Your task to perform on an android device: Open ESPN.com Image 0: 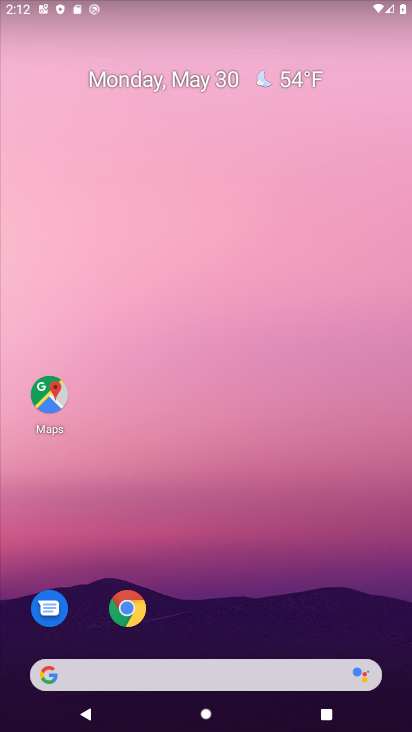
Step 0: click (121, 601)
Your task to perform on an android device: Open ESPN.com Image 1: 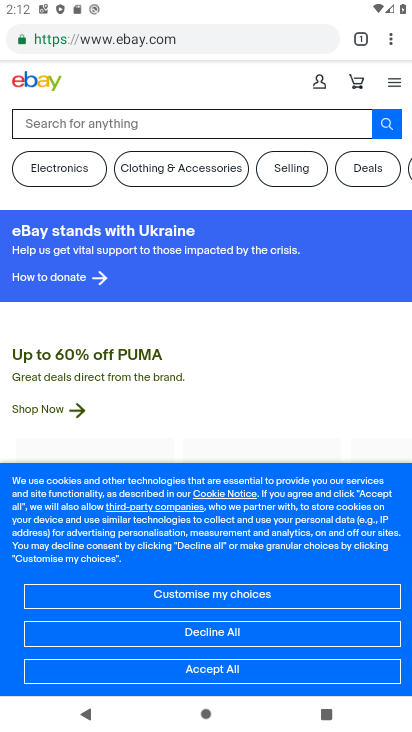
Step 1: click (361, 38)
Your task to perform on an android device: Open ESPN.com Image 2: 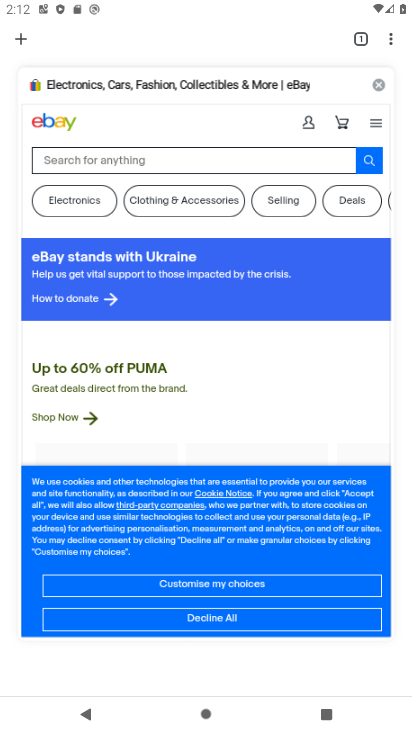
Step 2: click (17, 34)
Your task to perform on an android device: Open ESPN.com Image 3: 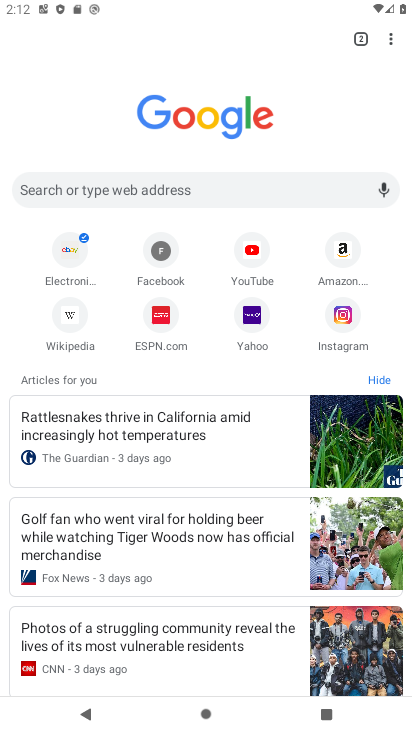
Step 3: click (168, 319)
Your task to perform on an android device: Open ESPN.com Image 4: 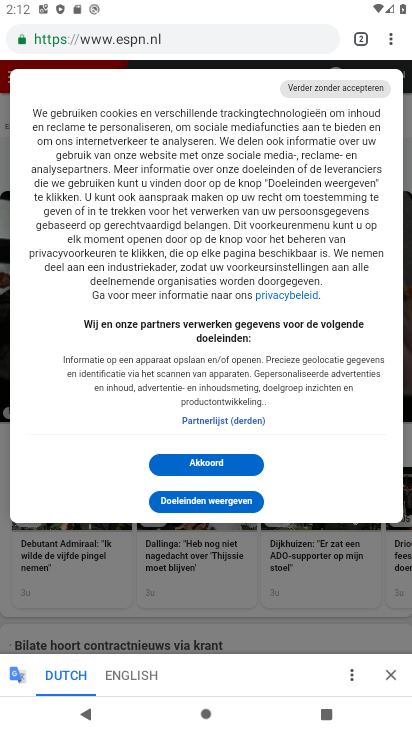
Step 4: task complete